Your task to perform on an android device: Open Amazon Image 0: 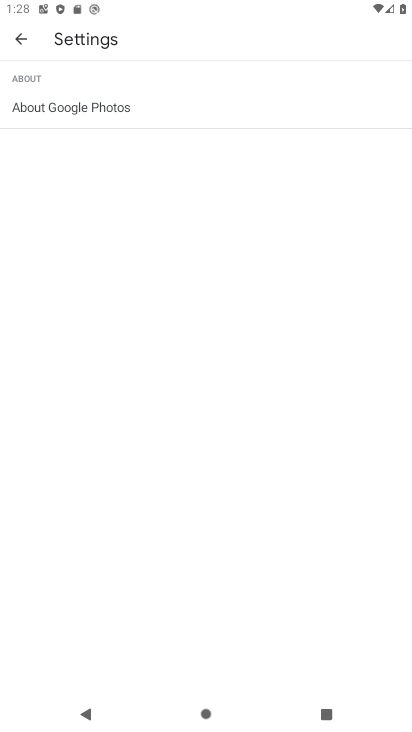
Step 0: press home button
Your task to perform on an android device: Open Amazon Image 1: 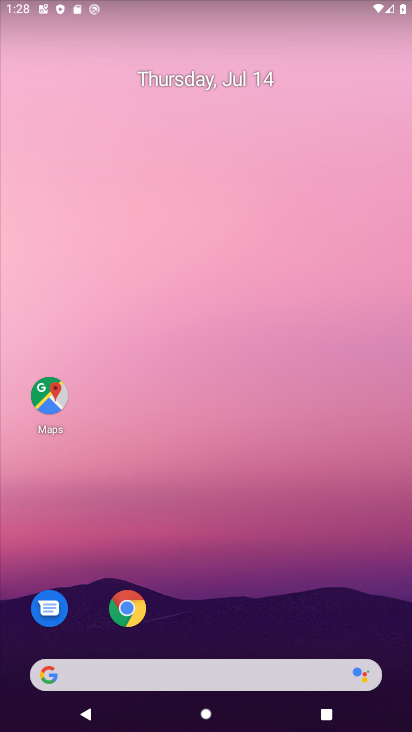
Step 1: click (126, 609)
Your task to perform on an android device: Open Amazon Image 2: 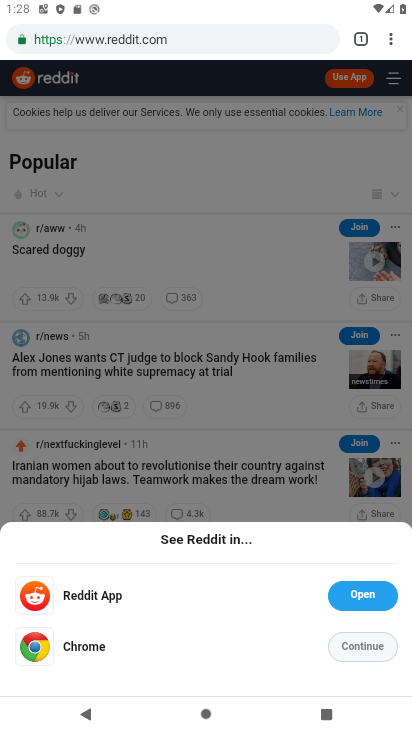
Step 2: click (210, 35)
Your task to perform on an android device: Open Amazon Image 3: 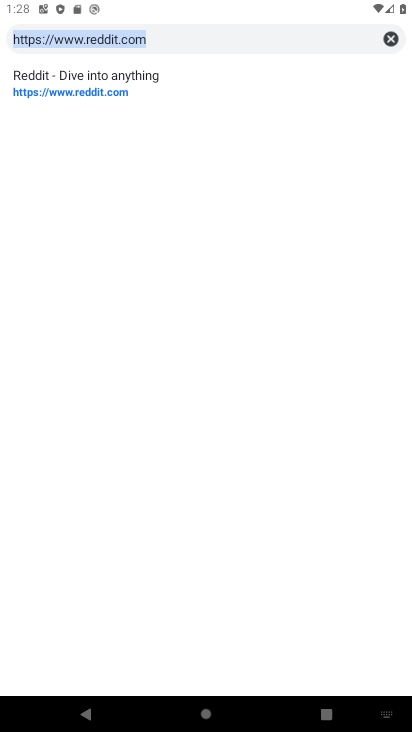
Step 3: click (389, 39)
Your task to perform on an android device: Open Amazon Image 4: 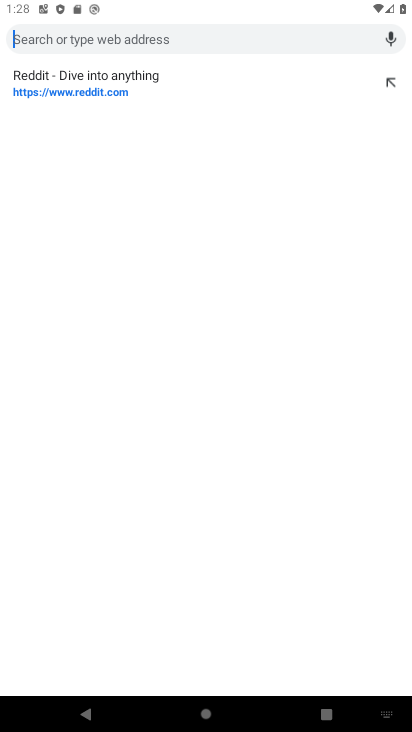
Step 4: type "amazon"
Your task to perform on an android device: Open Amazon Image 5: 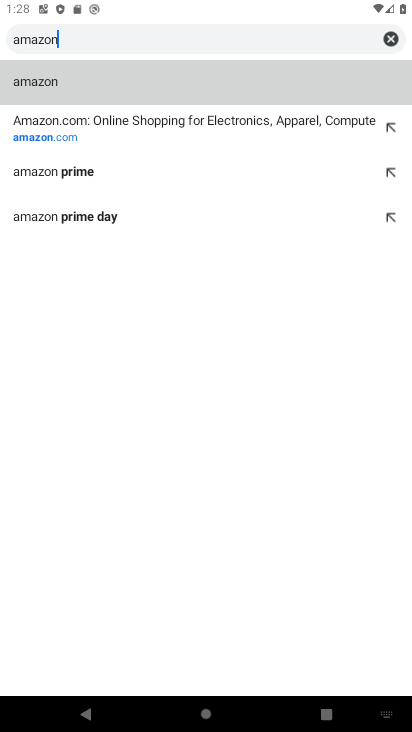
Step 5: click (79, 135)
Your task to perform on an android device: Open Amazon Image 6: 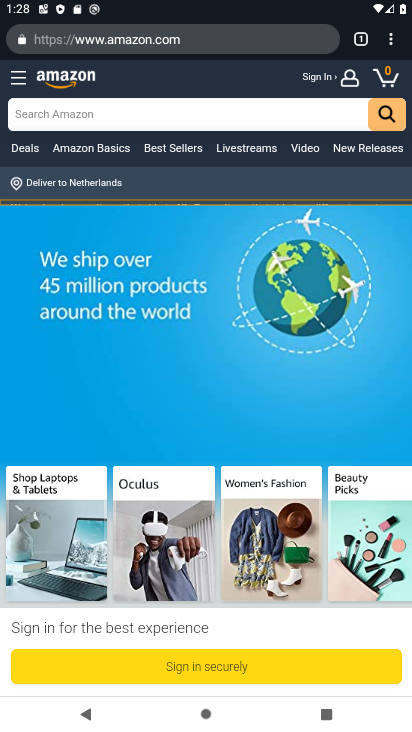
Step 6: task complete